Your task to perform on an android device: check battery use Image 0: 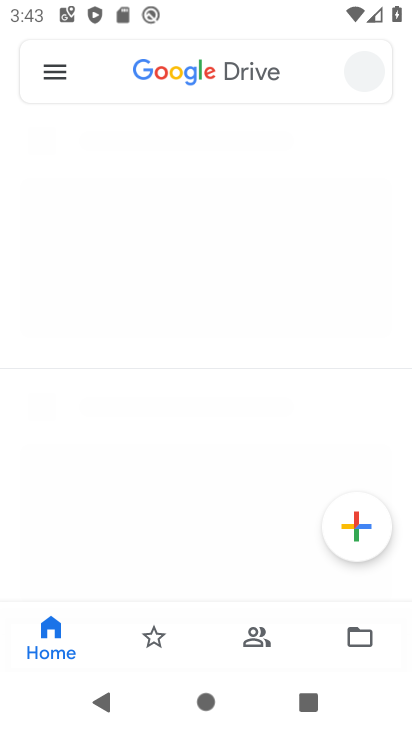
Step 0: drag from (357, 571) to (400, 576)
Your task to perform on an android device: check battery use Image 1: 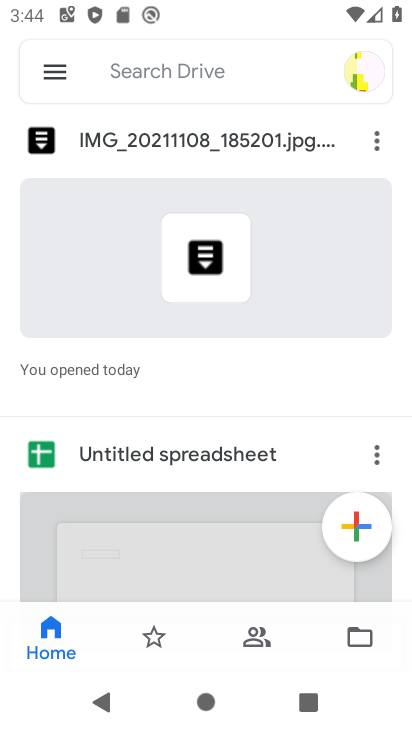
Step 1: press home button
Your task to perform on an android device: check battery use Image 2: 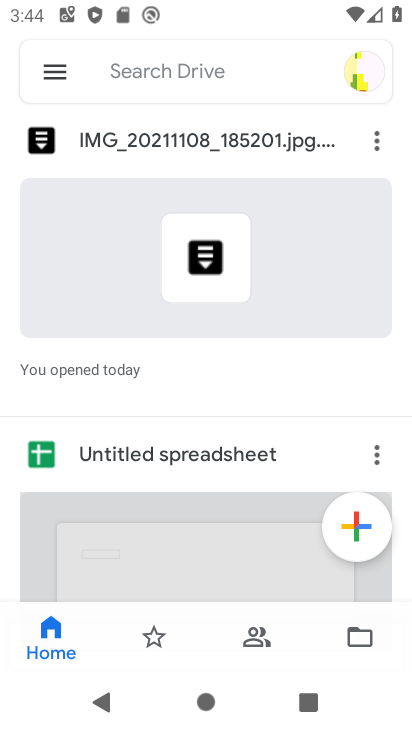
Step 2: drag from (400, 576) to (410, 609)
Your task to perform on an android device: check battery use Image 3: 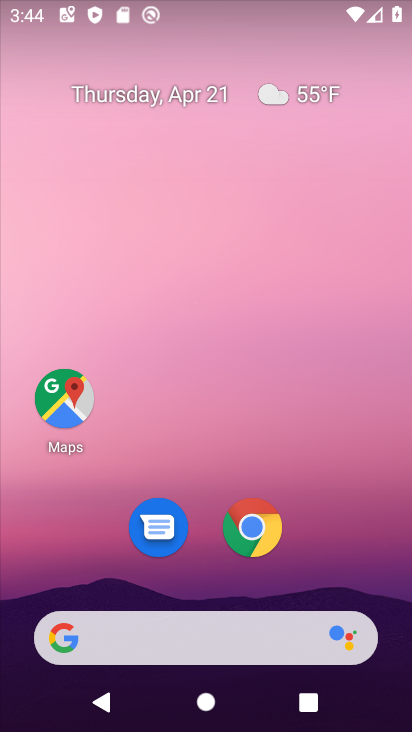
Step 3: drag from (379, 556) to (294, 141)
Your task to perform on an android device: check battery use Image 4: 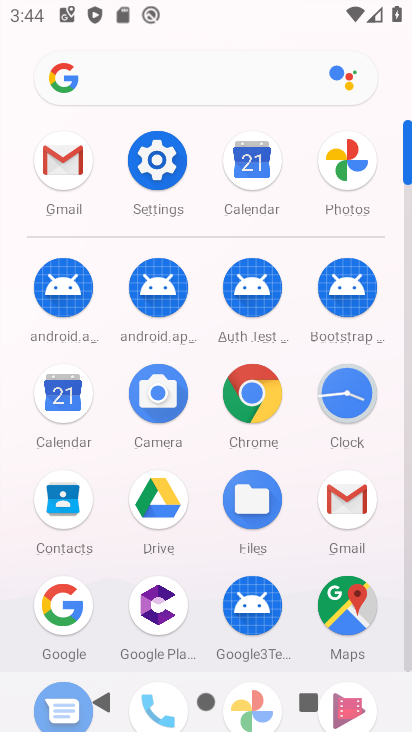
Step 4: click (173, 156)
Your task to perform on an android device: check battery use Image 5: 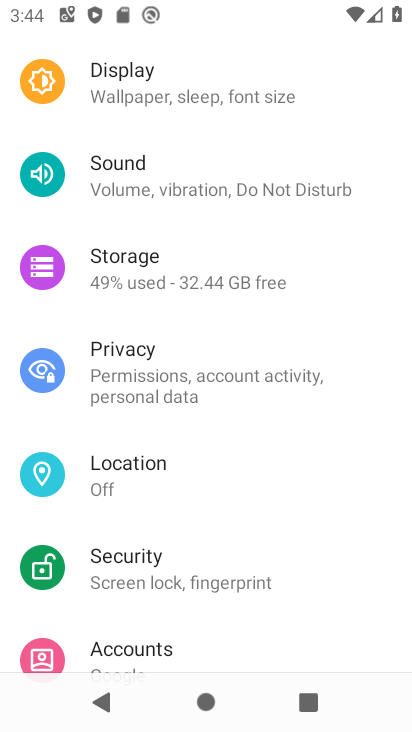
Step 5: drag from (245, 143) to (242, 561)
Your task to perform on an android device: check battery use Image 6: 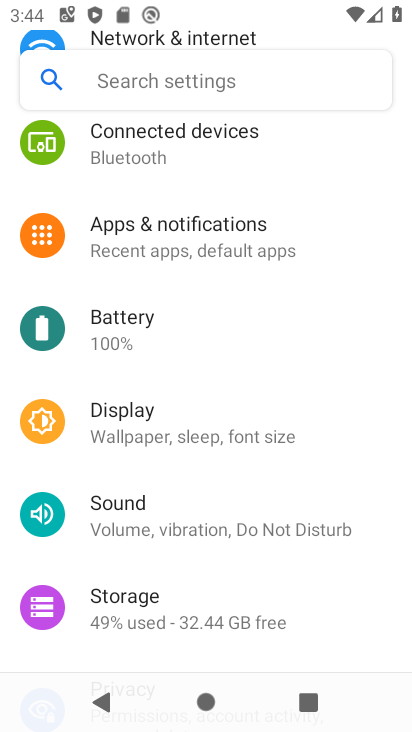
Step 6: click (174, 319)
Your task to perform on an android device: check battery use Image 7: 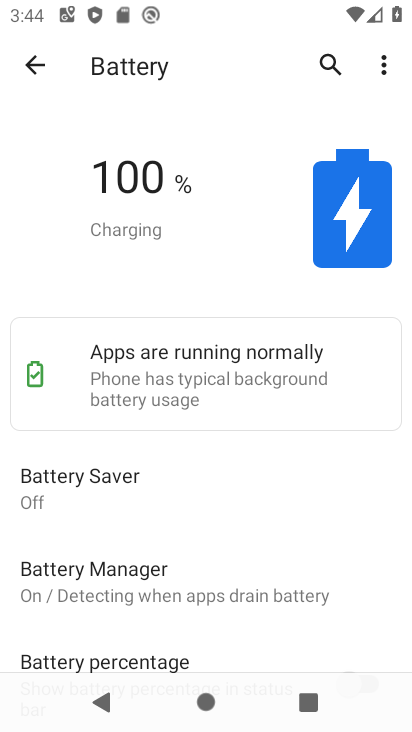
Step 7: click (385, 58)
Your task to perform on an android device: check battery use Image 8: 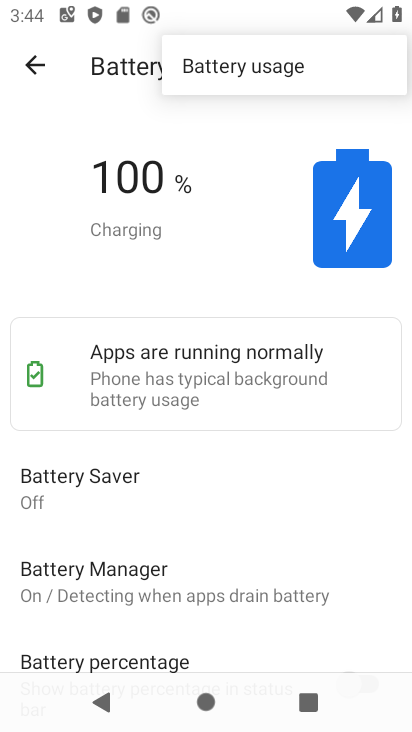
Step 8: click (338, 76)
Your task to perform on an android device: check battery use Image 9: 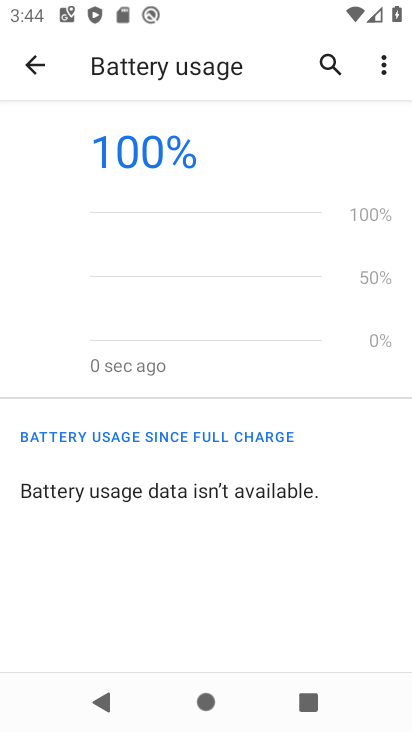
Step 9: task complete